Your task to perform on an android device: turn vacation reply on in the gmail app Image 0: 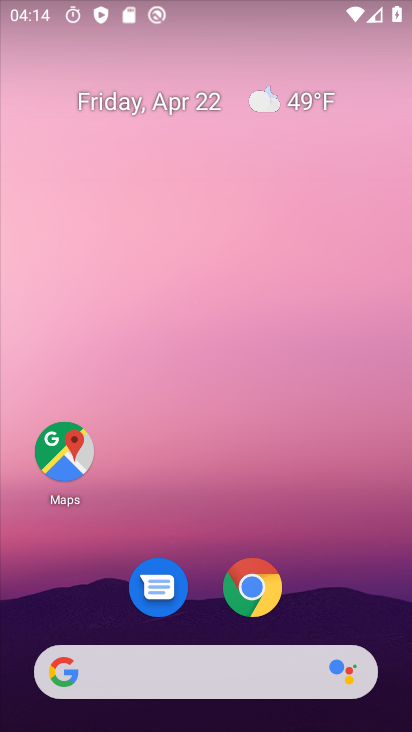
Step 0: drag from (342, 587) to (346, 35)
Your task to perform on an android device: turn vacation reply on in the gmail app Image 1: 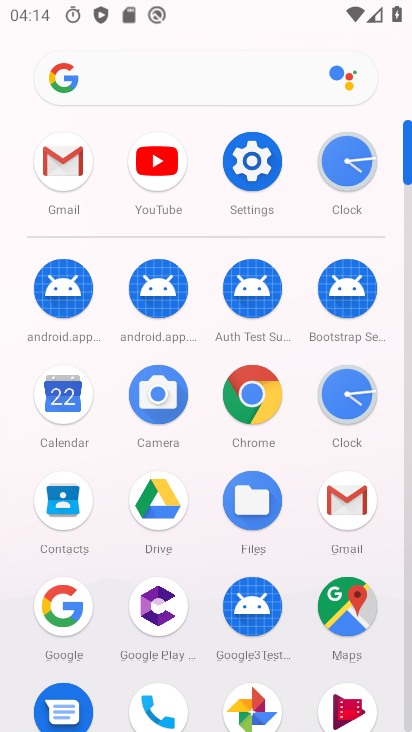
Step 1: click (53, 163)
Your task to perform on an android device: turn vacation reply on in the gmail app Image 2: 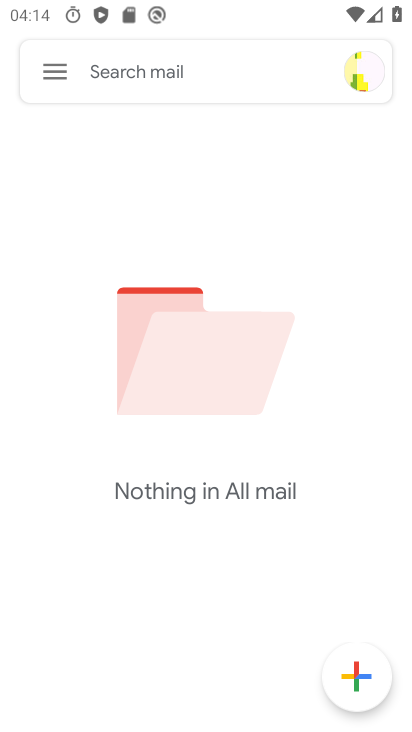
Step 2: click (56, 76)
Your task to perform on an android device: turn vacation reply on in the gmail app Image 3: 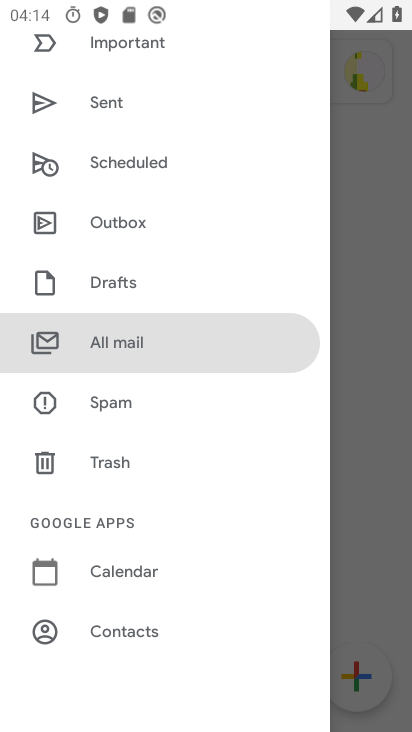
Step 3: drag from (239, 613) to (226, 188)
Your task to perform on an android device: turn vacation reply on in the gmail app Image 4: 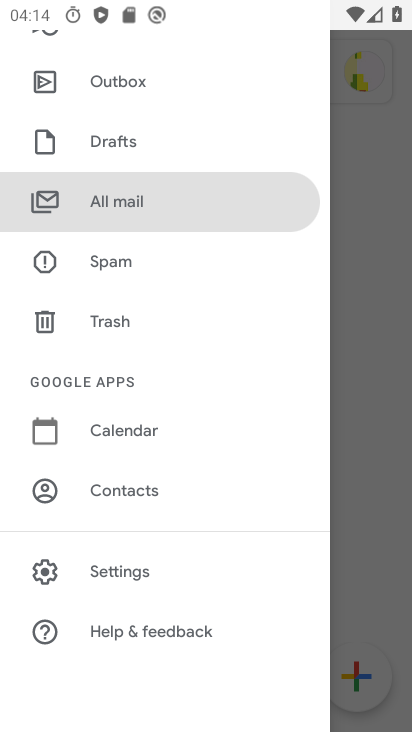
Step 4: click (104, 578)
Your task to perform on an android device: turn vacation reply on in the gmail app Image 5: 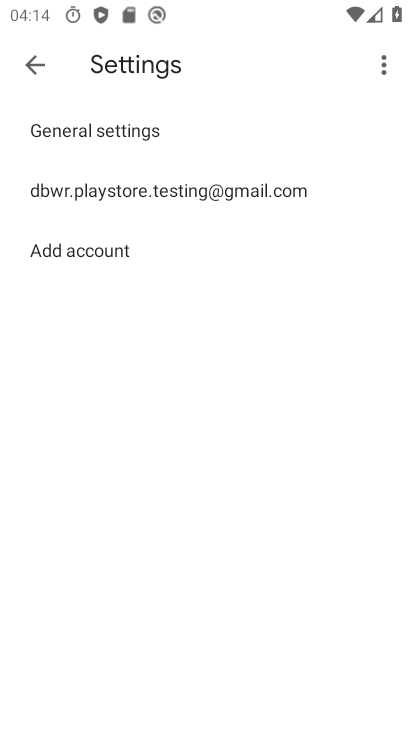
Step 5: click (111, 192)
Your task to perform on an android device: turn vacation reply on in the gmail app Image 6: 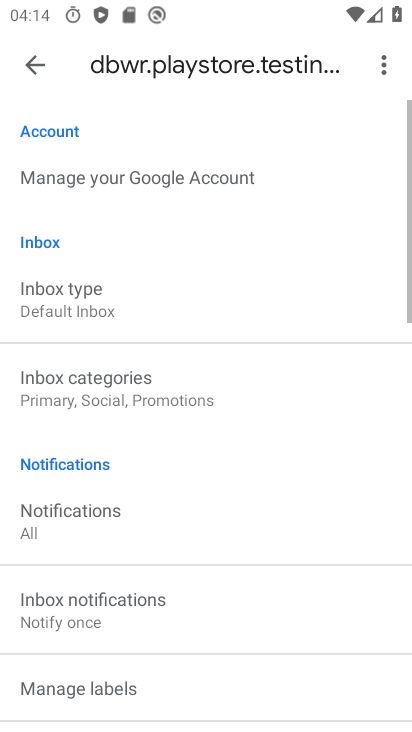
Step 6: drag from (219, 542) to (209, 137)
Your task to perform on an android device: turn vacation reply on in the gmail app Image 7: 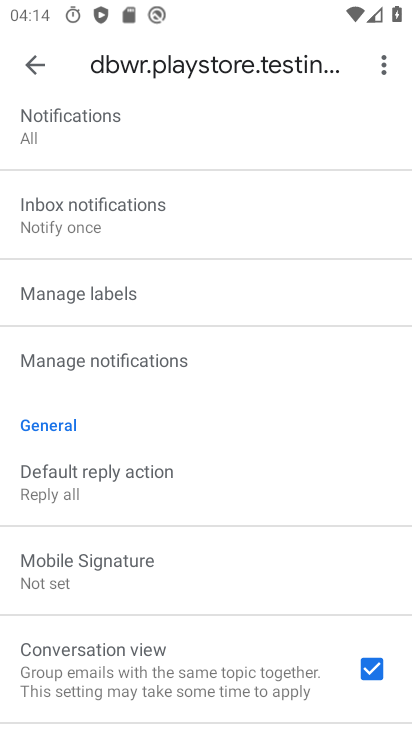
Step 7: drag from (193, 495) to (188, 113)
Your task to perform on an android device: turn vacation reply on in the gmail app Image 8: 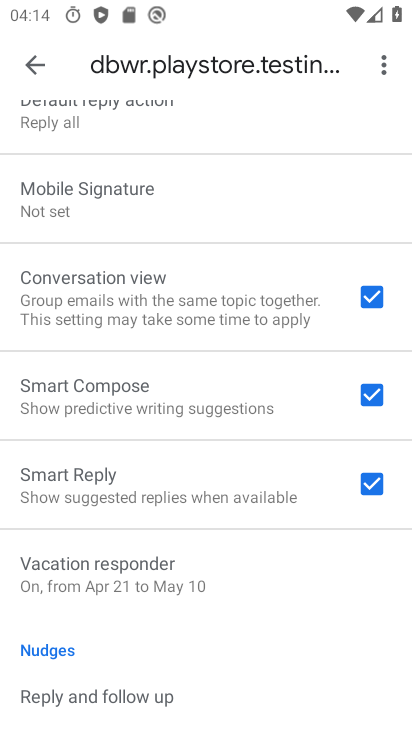
Step 8: click (134, 574)
Your task to perform on an android device: turn vacation reply on in the gmail app Image 9: 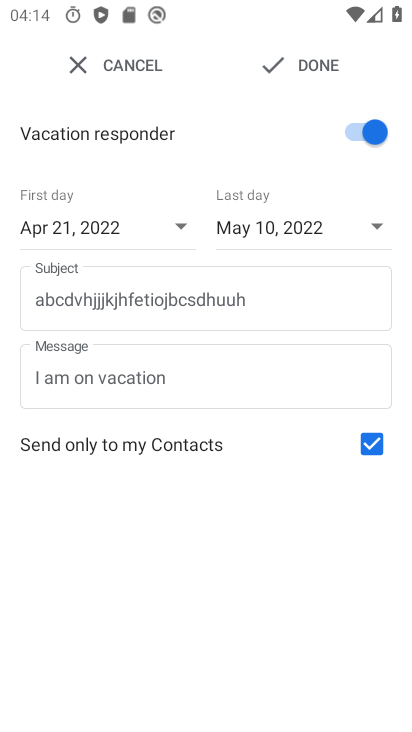
Step 9: click (303, 72)
Your task to perform on an android device: turn vacation reply on in the gmail app Image 10: 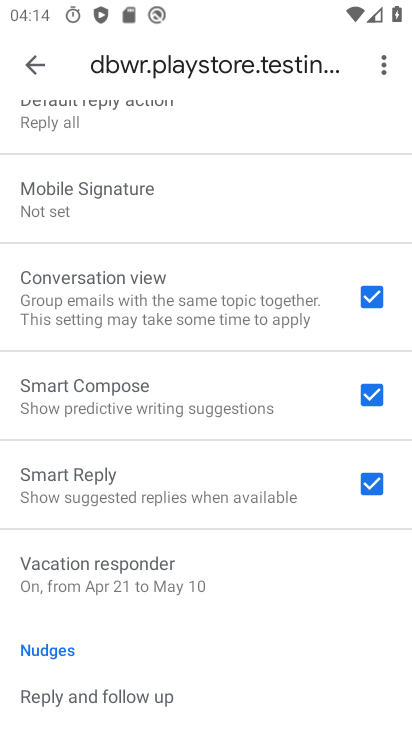
Step 10: task complete